Your task to perform on an android device: Toggle the flashlight Image 0: 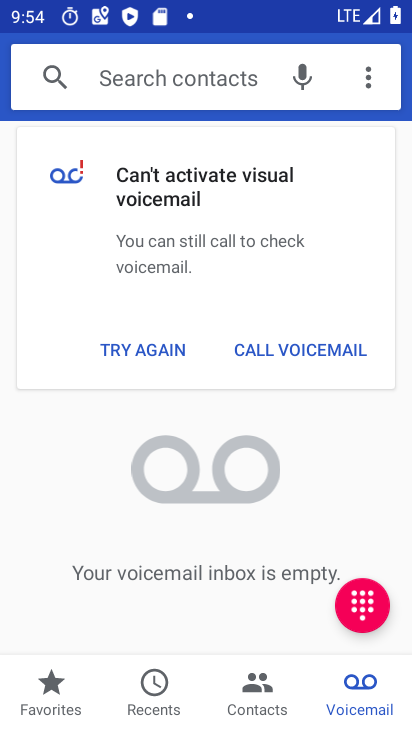
Step 0: press home button
Your task to perform on an android device: Toggle the flashlight Image 1: 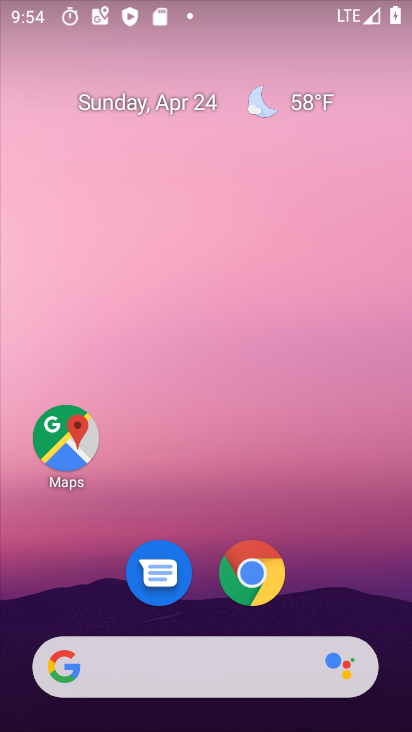
Step 1: task complete